Your task to perform on an android device: toggle wifi Image 0: 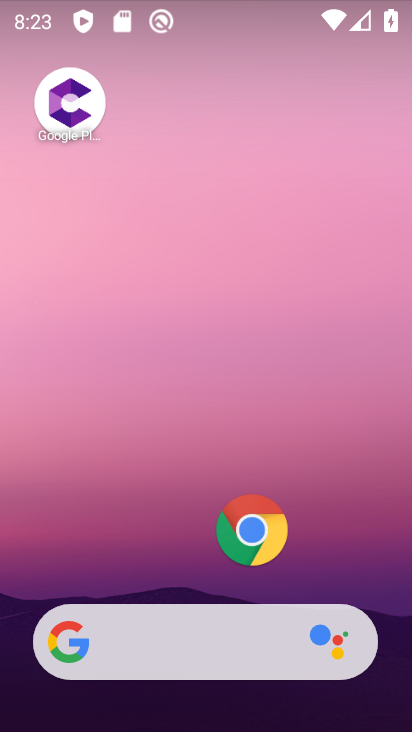
Step 0: drag from (110, 606) to (263, 95)
Your task to perform on an android device: toggle wifi Image 1: 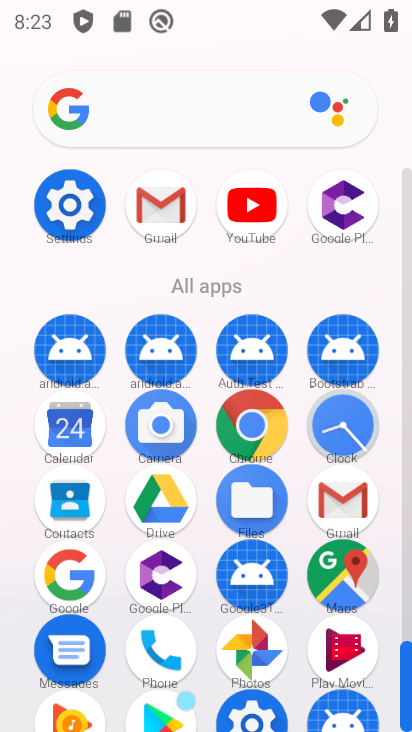
Step 1: drag from (159, 555) to (252, 247)
Your task to perform on an android device: toggle wifi Image 2: 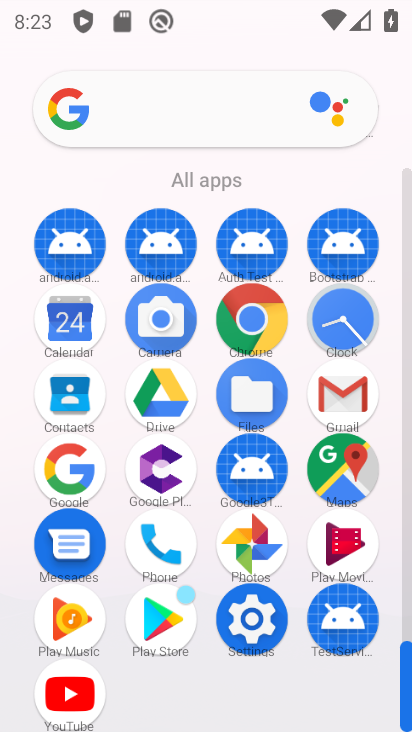
Step 2: click (262, 617)
Your task to perform on an android device: toggle wifi Image 3: 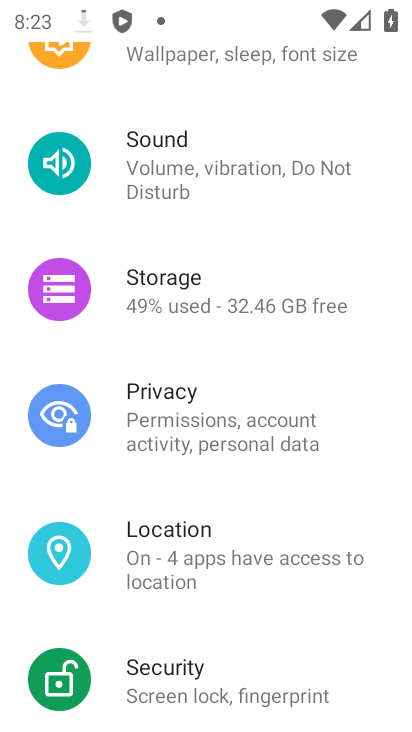
Step 3: drag from (305, 188) to (179, 669)
Your task to perform on an android device: toggle wifi Image 4: 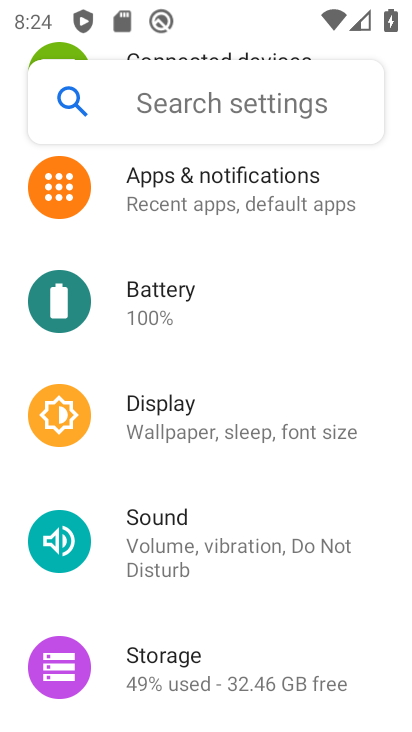
Step 4: drag from (237, 385) to (177, 700)
Your task to perform on an android device: toggle wifi Image 5: 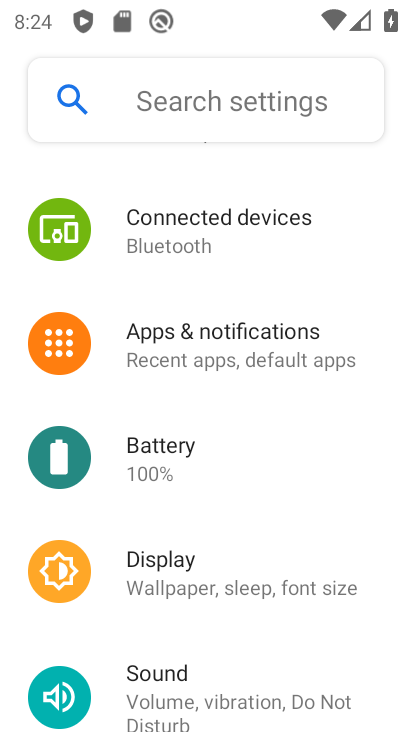
Step 5: drag from (225, 267) to (160, 598)
Your task to perform on an android device: toggle wifi Image 6: 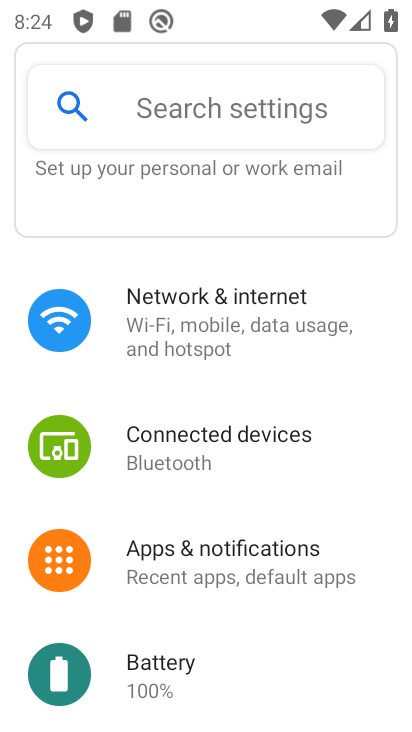
Step 6: click (221, 357)
Your task to perform on an android device: toggle wifi Image 7: 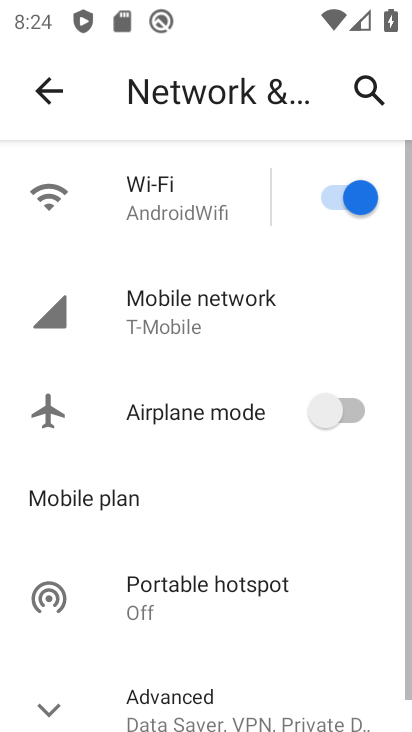
Step 7: click (346, 195)
Your task to perform on an android device: toggle wifi Image 8: 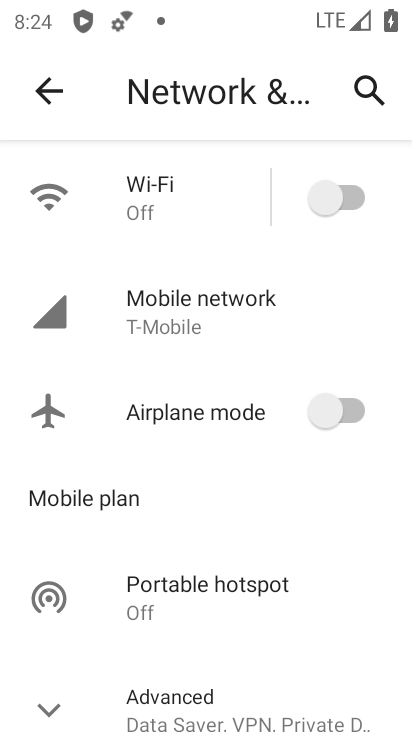
Step 8: task complete